Your task to perform on an android device: turn off priority inbox in the gmail app Image 0: 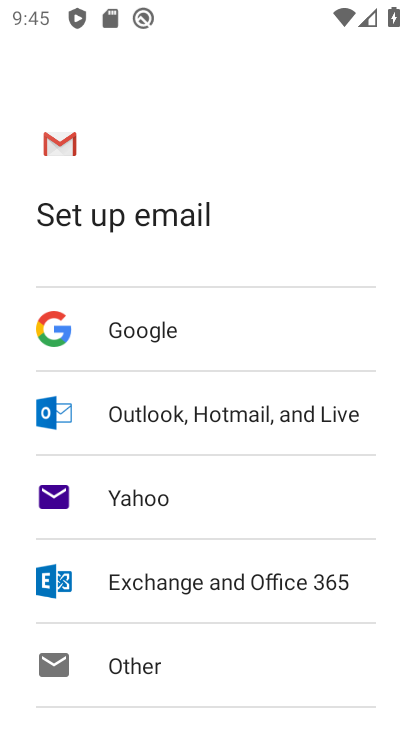
Step 0: press home button
Your task to perform on an android device: turn off priority inbox in the gmail app Image 1: 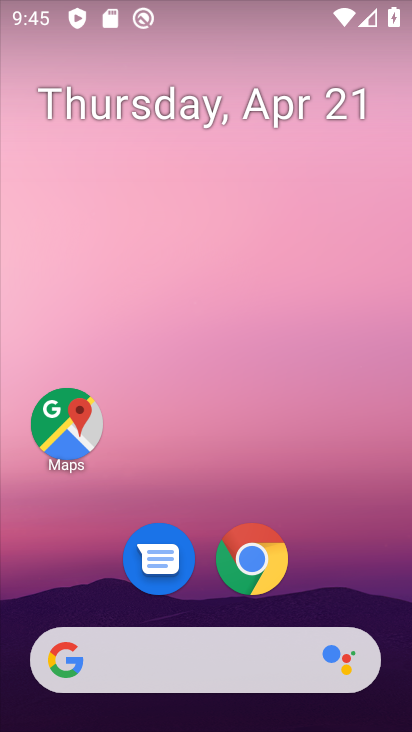
Step 1: drag from (322, 581) to (332, 95)
Your task to perform on an android device: turn off priority inbox in the gmail app Image 2: 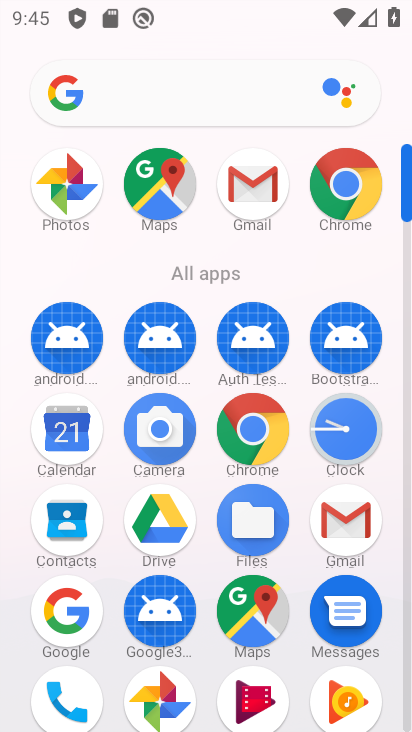
Step 2: click (263, 194)
Your task to perform on an android device: turn off priority inbox in the gmail app Image 3: 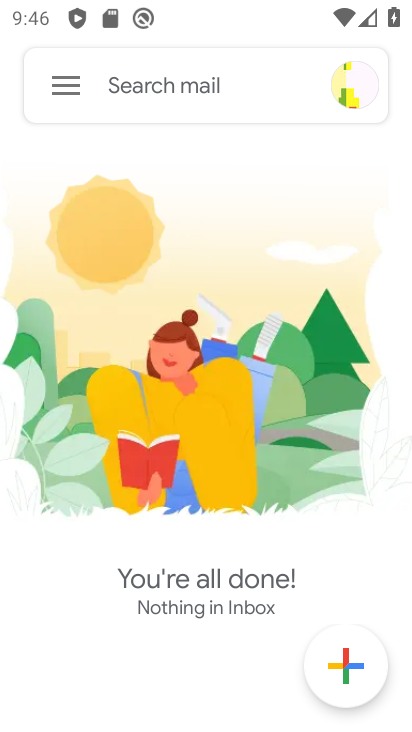
Step 3: click (66, 80)
Your task to perform on an android device: turn off priority inbox in the gmail app Image 4: 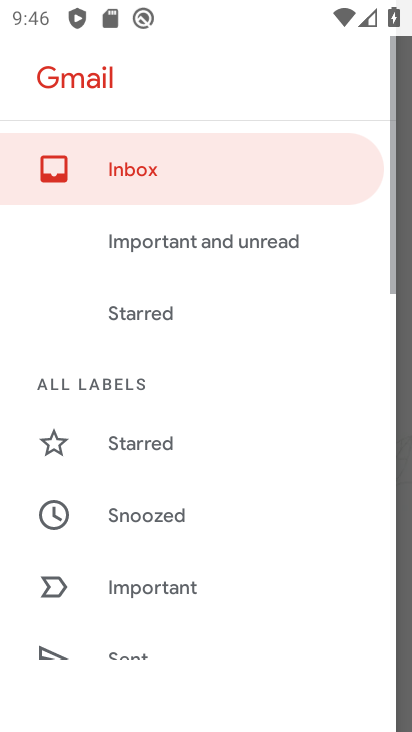
Step 4: drag from (174, 638) to (184, 221)
Your task to perform on an android device: turn off priority inbox in the gmail app Image 5: 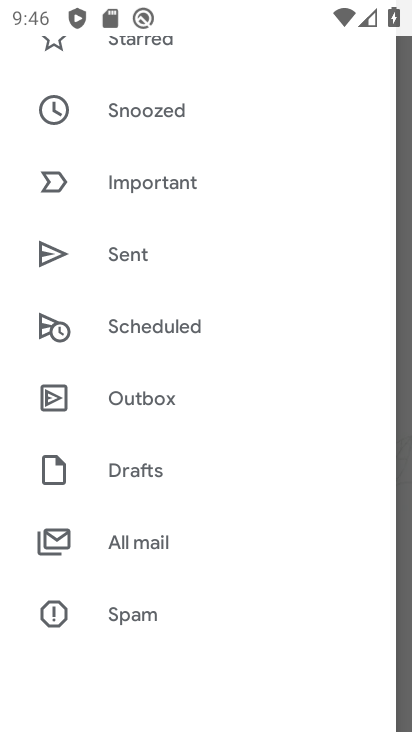
Step 5: drag from (208, 612) to (220, 285)
Your task to perform on an android device: turn off priority inbox in the gmail app Image 6: 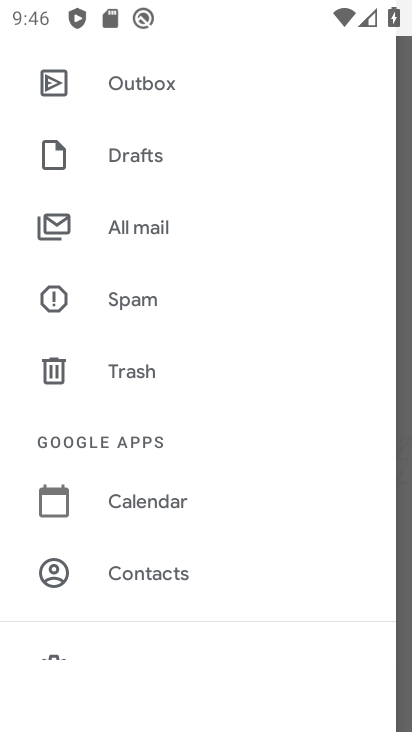
Step 6: drag from (194, 589) to (215, 168)
Your task to perform on an android device: turn off priority inbox in the gmail app Image 7: 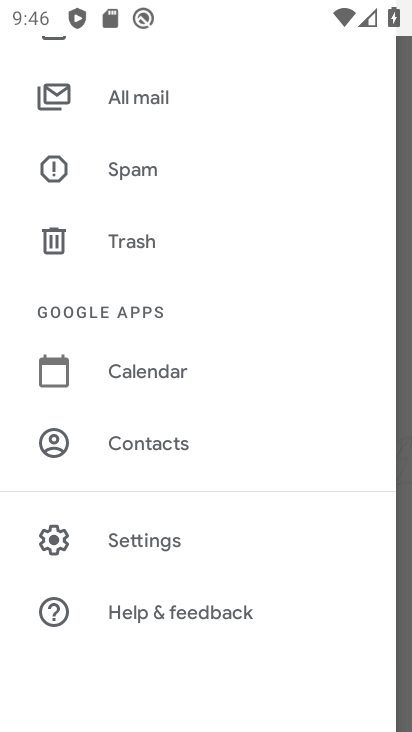
Step 7: click (157, 544)
Your task to perform on an android device: turn off priority inbox in the gmail app Image 8: 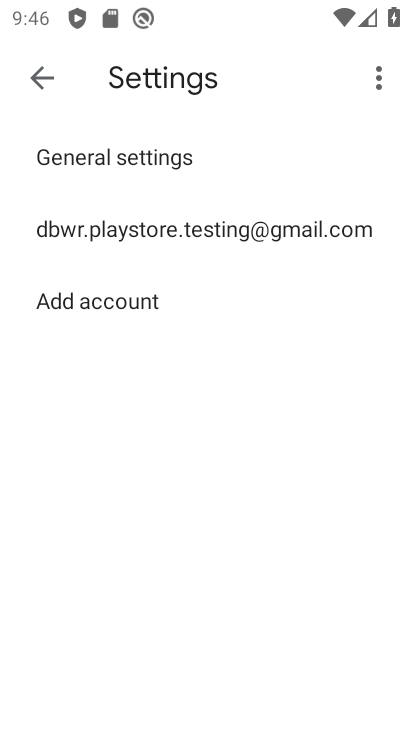
Step 8: click (135, 240)
Your task to perform on an android device: turn off priority inbox in the gmail app Image 9: 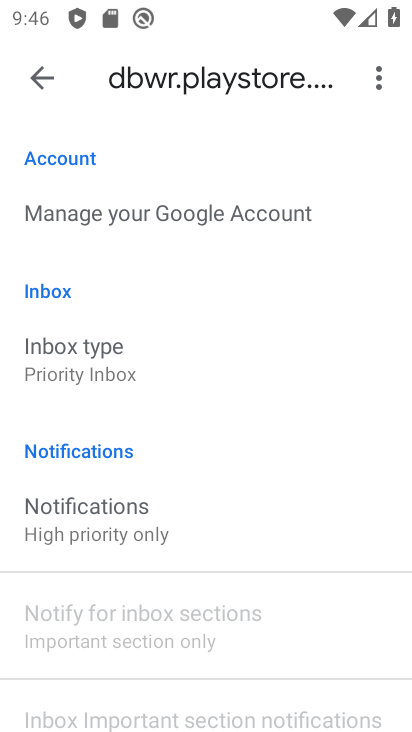
Step 9: task complete